Your task to perform on an android device: turn pop-ups off in chrome Image 0: 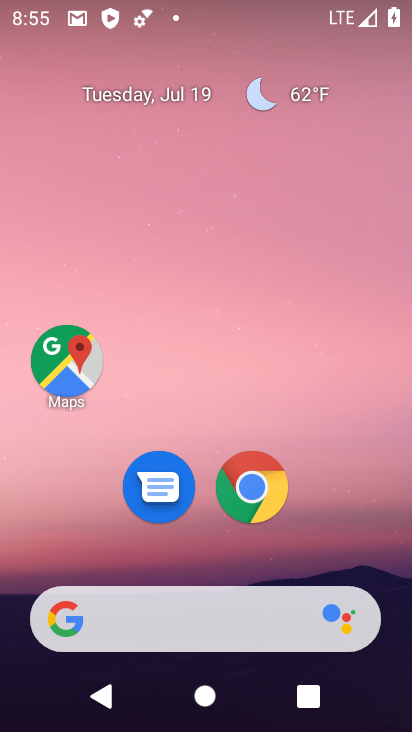
Step 0: click (268, 487)
Your task to perform on an android device: turn pop-ups off in chrome Image 1: 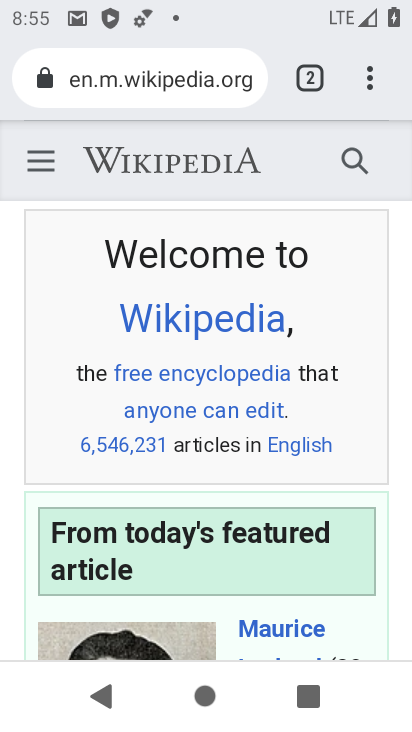
Step 1: drag from (368, 72) to (111, 540)
Your task to perform on an android device: turn pop-ups off in chrome Image 2: 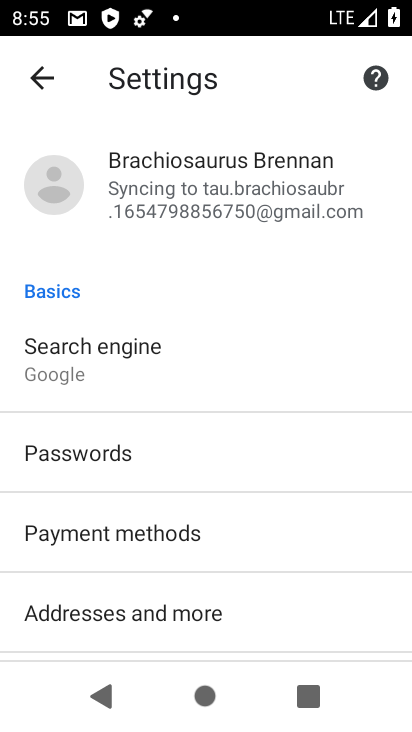
Step 2: drag from (104, 584) to (250, 129)
Your task to perform on an android device: turn pop-ups off in chrome Image 3: 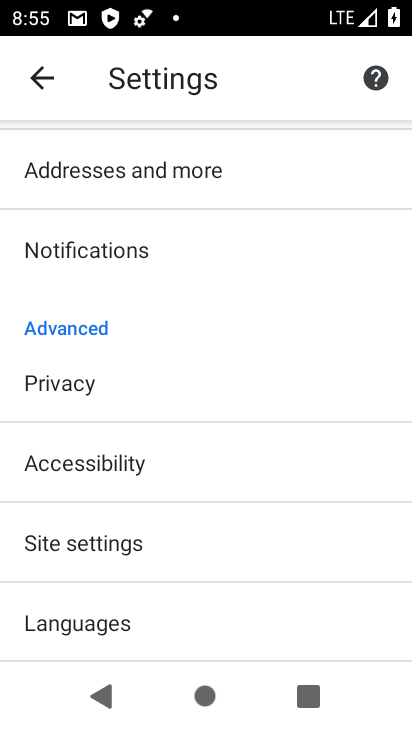
Step 3: click (89, 546)
Your task to perform on an android device: turn pop-ups off in chrome Image 4: 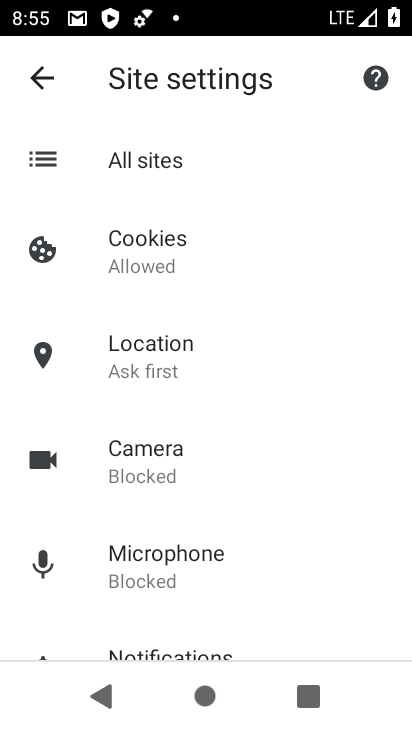
Step 4: drag from (186, 585) to (279, 95)
Your task to perform on an android device: turn pop-ups off in chrome Image 5: 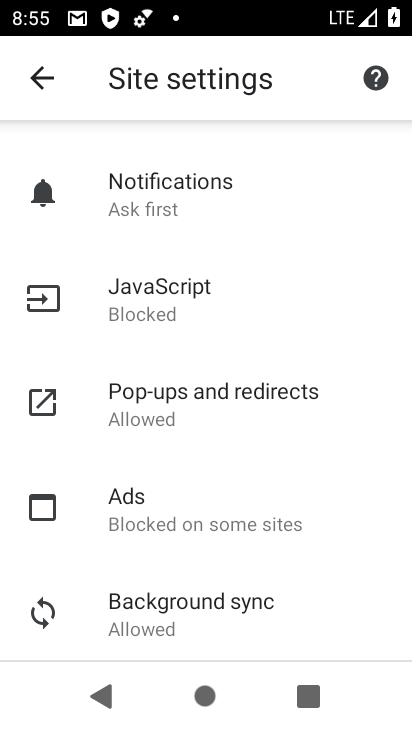
Step 5: click (204, 402)
Your task to perform on an android device: turn pop-ups off in chrome Image 6: 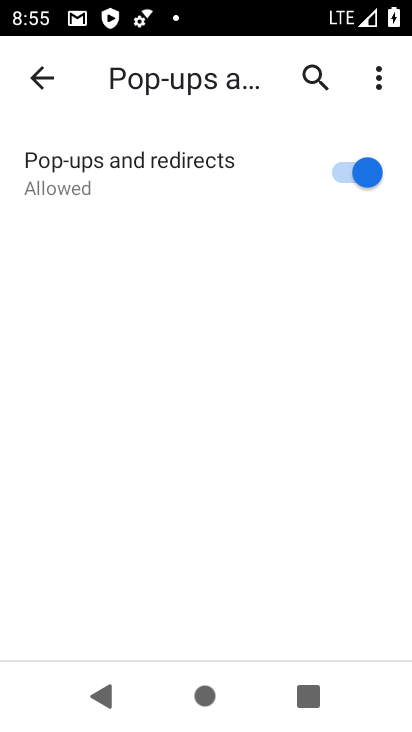
Step 6: click (370, 177)
Your task to perform on an android device: turn pop-ups off in chrome Image 7: 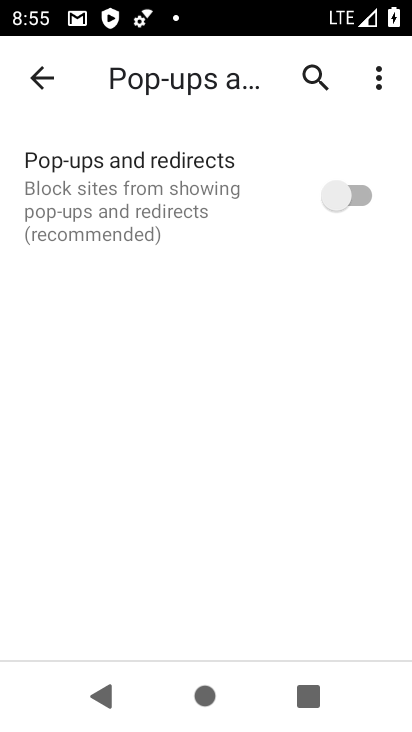
Step 7: task complete